Your task to perform on an android device: install app "Venmo" Image 0: 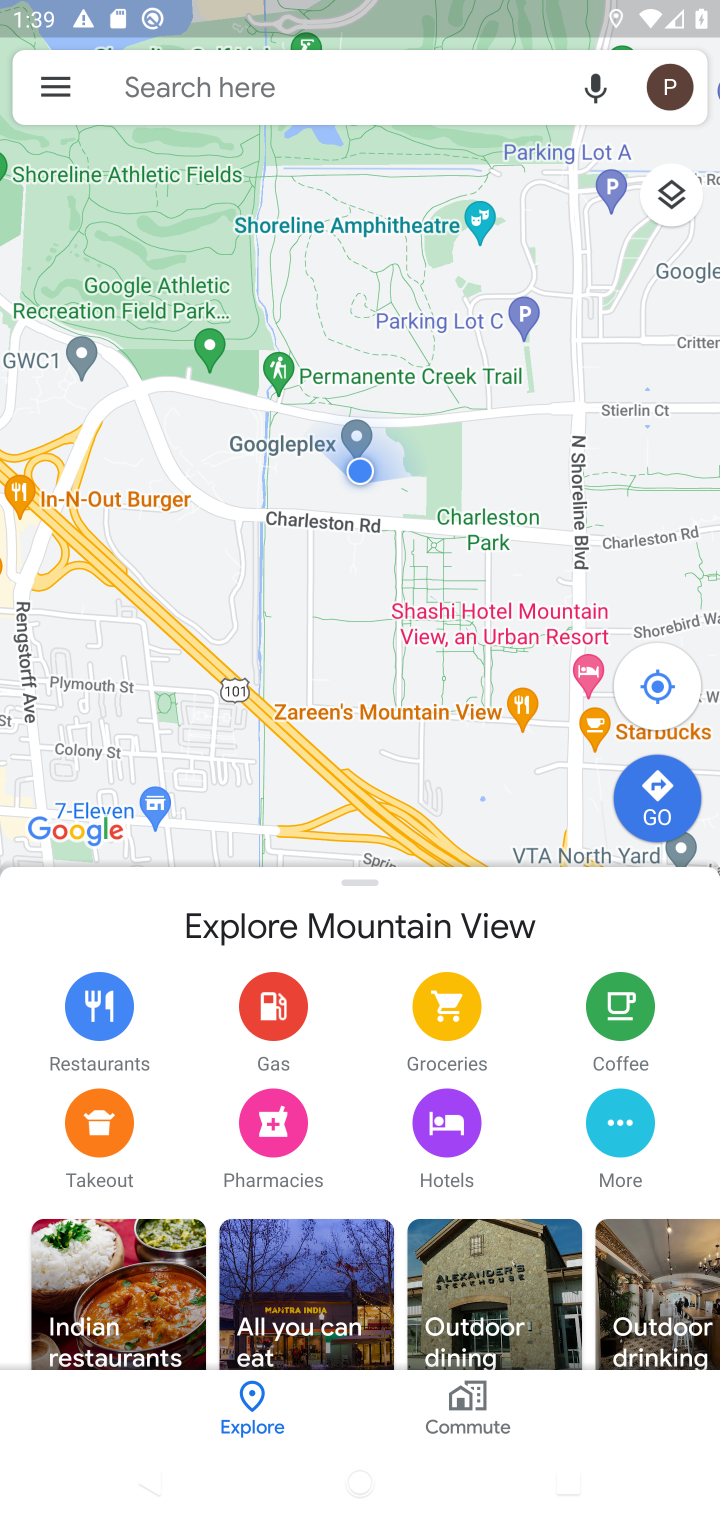
Step 0: press home button
Your task to perform on an android device: install app "Venmo" Image 1: 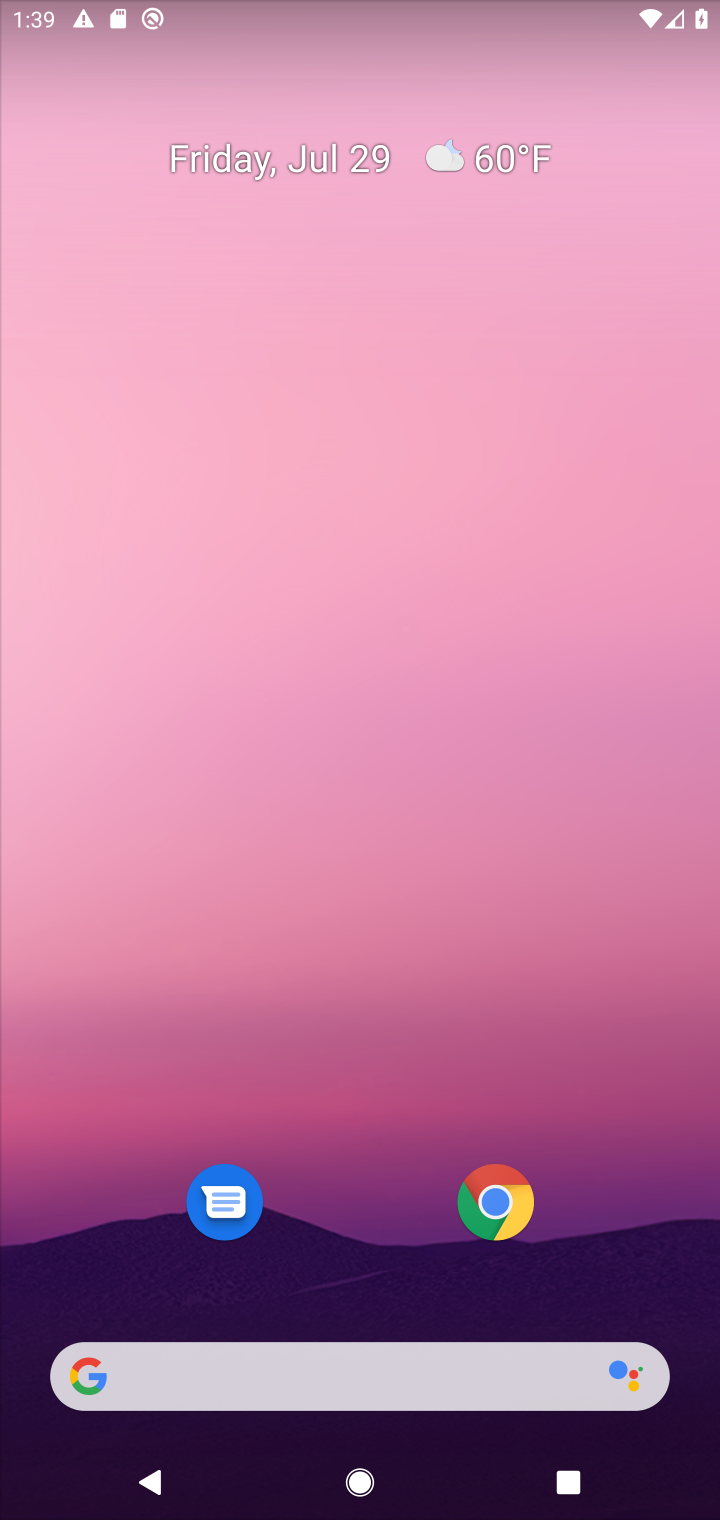
Step 1: click (289, 1398)
Your task to perform on an android device: install app "Venmo" Image 2: 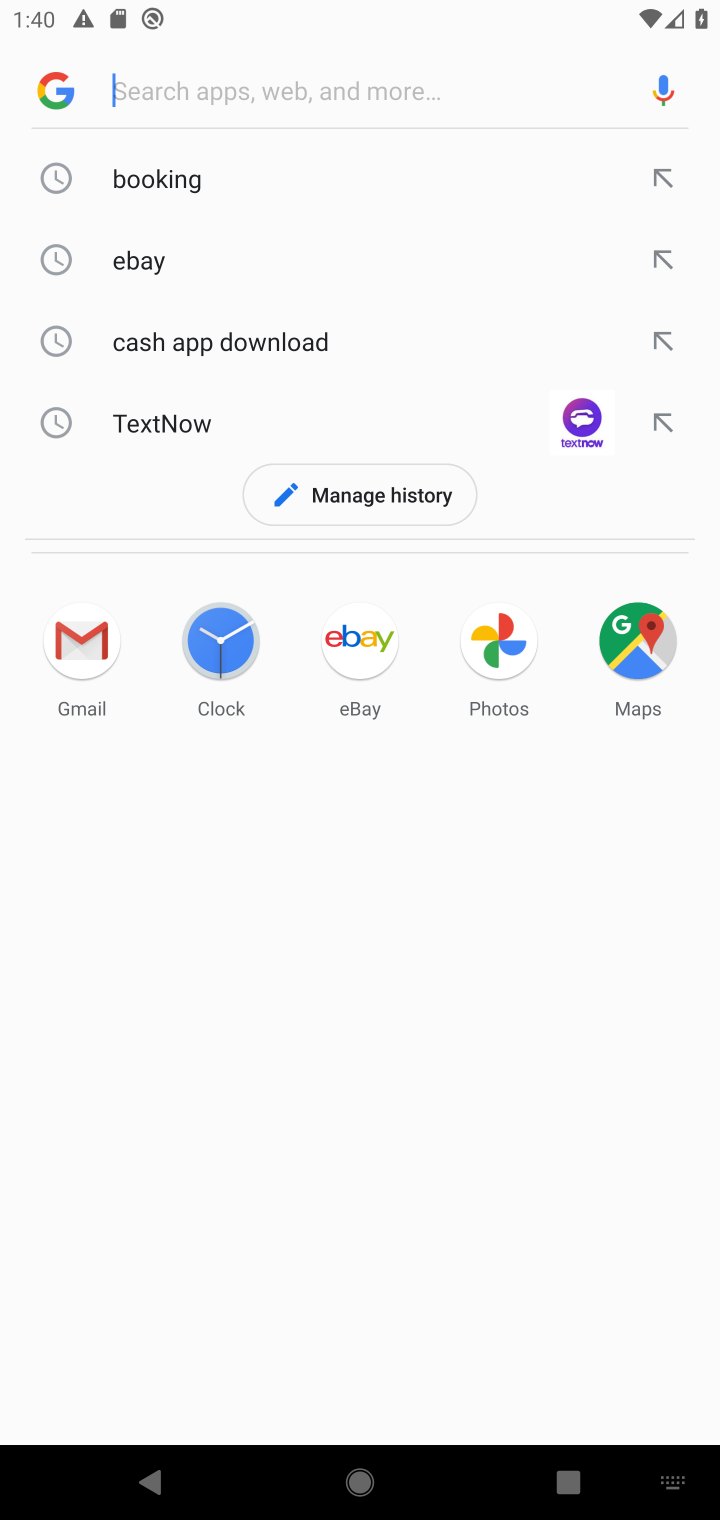
Step 2: type "venmo"
Your task to perform on an android device: install app "Venmo" Image 3: 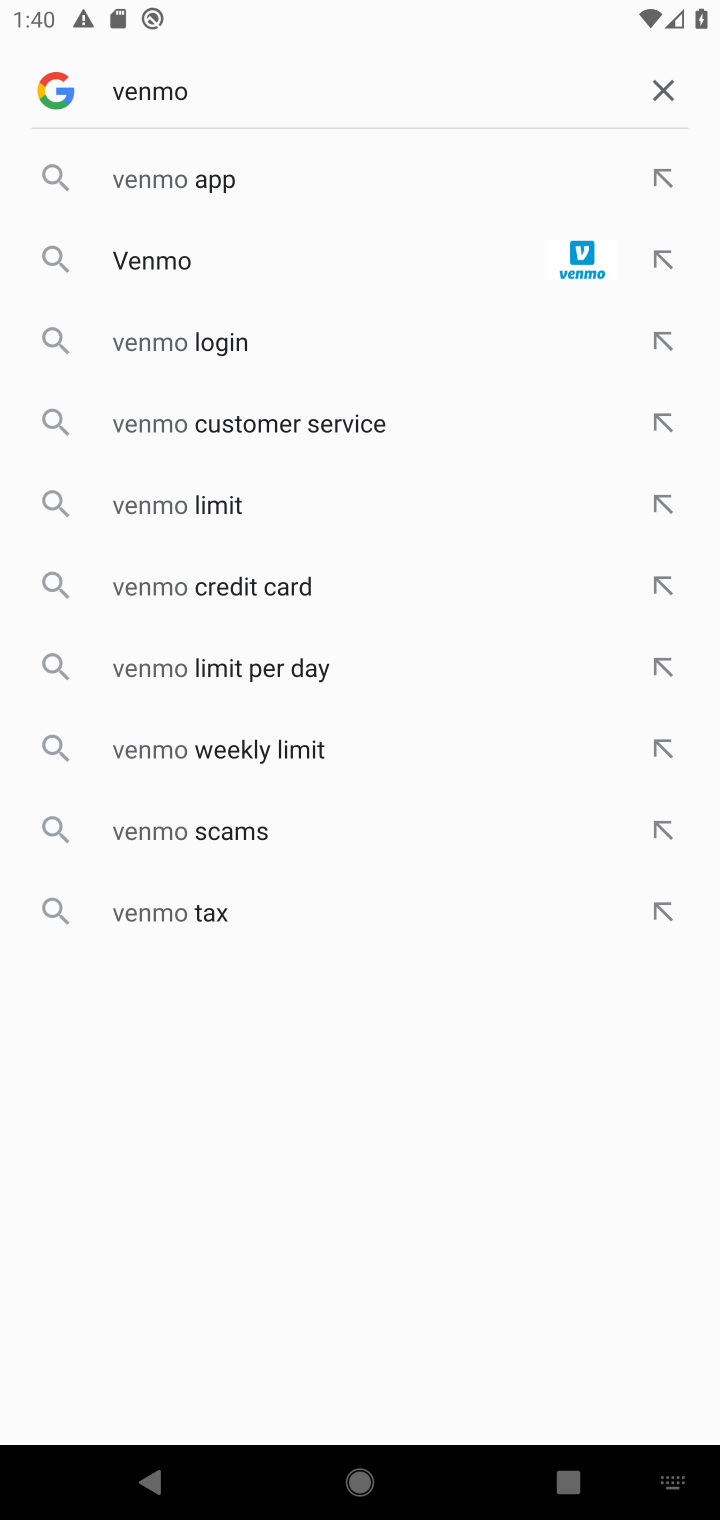
Step 3: click (138, 184)
Your task to perform on an android device: install app "Venmo" Image 4: 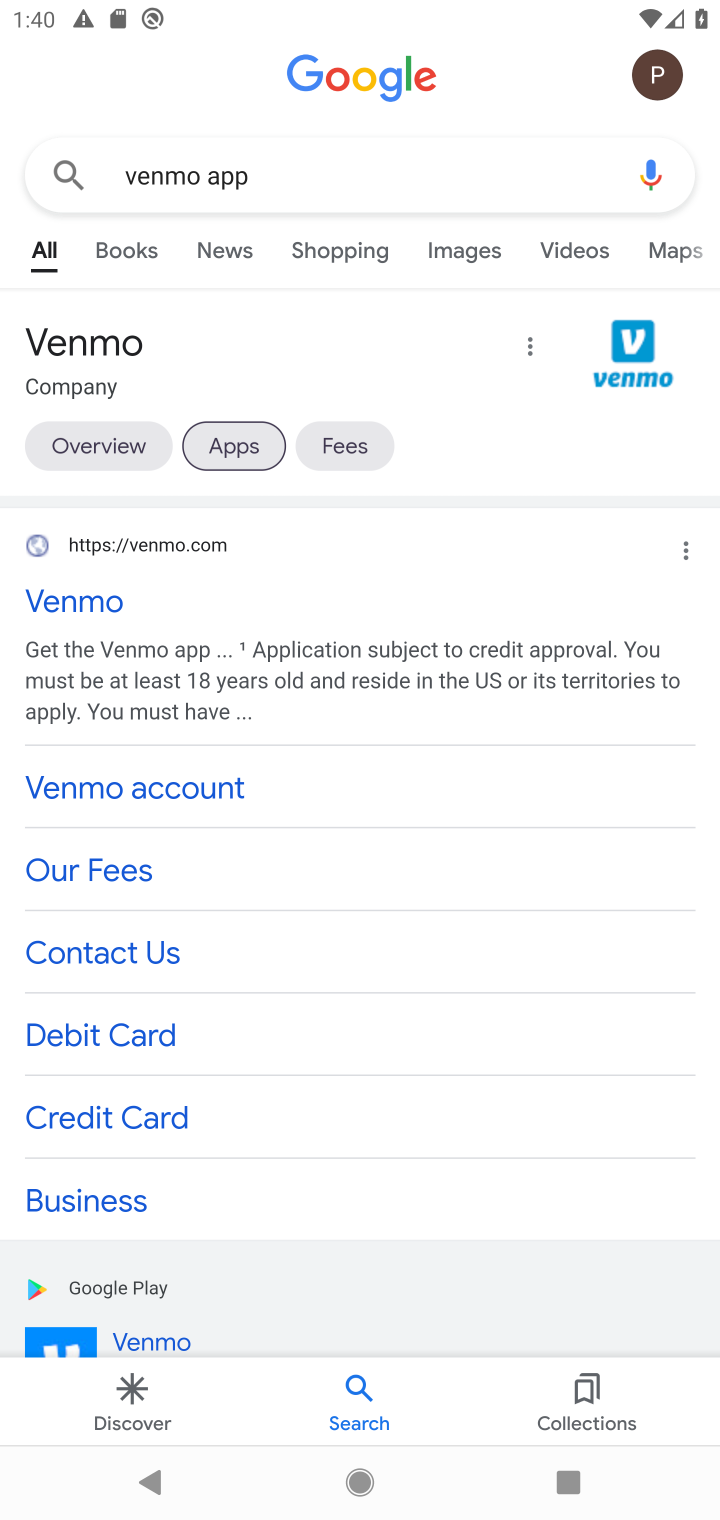
Step 4: drag from (139, 1324) to (114, 815)
Your task to perform on an android device: install app "Venmo" Image 5: 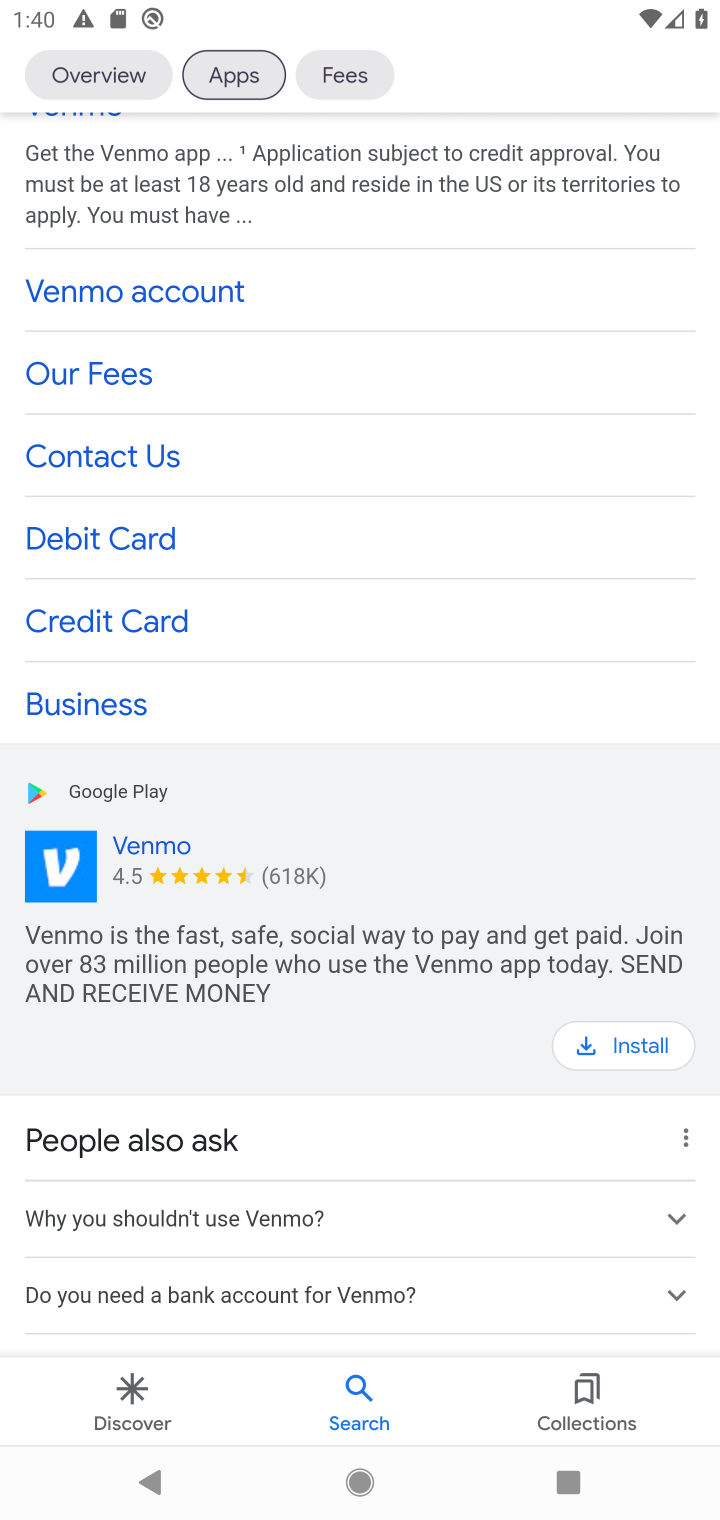
Step 5: click (659, 1054)
Your task to perform on an android device: install app "Venmo" Image 6: 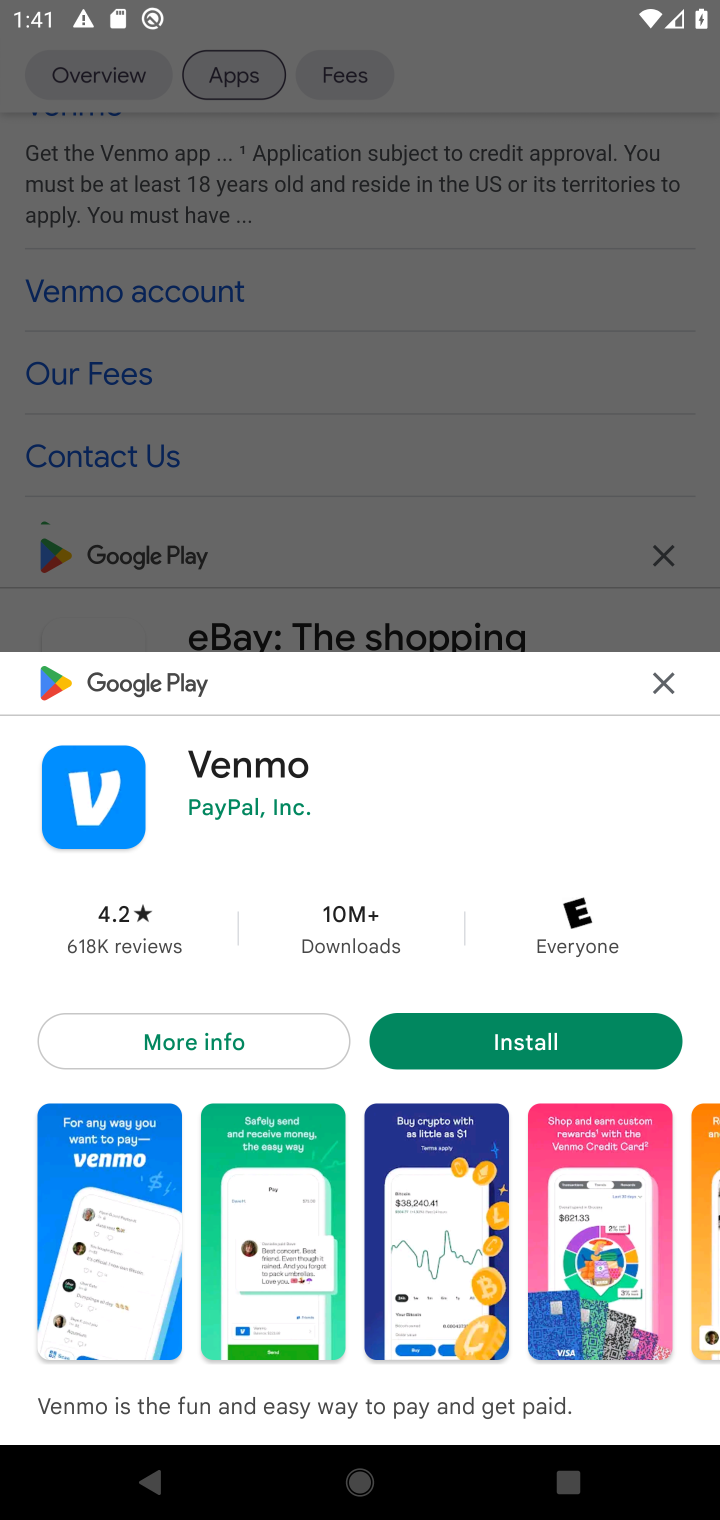
Step 6: click (474, 1032)
Your task to perform on an android device: install app "Venmo" Image 7: 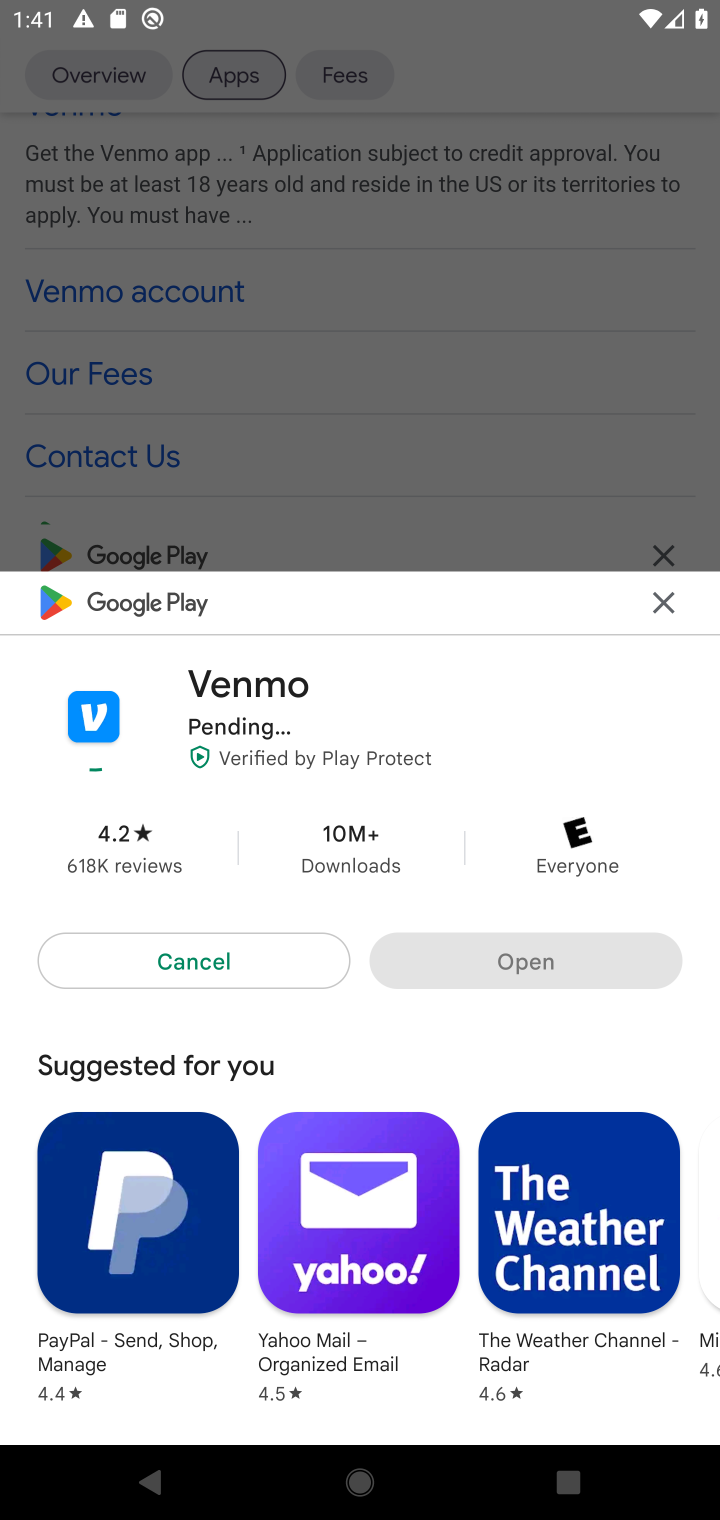
Step 7: task complete